Your task to perform on an android device: Go to privacy settings Image 0: 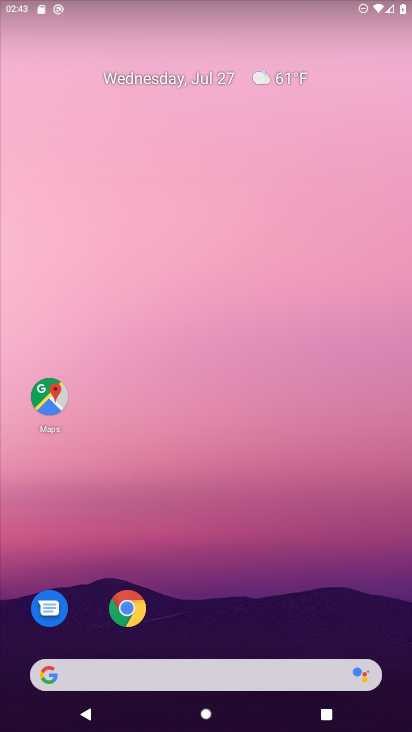
Step 0: drag from (300, 612) to (254, 61)
Your task to perform on an android device: Go to privacy settings Image 1: 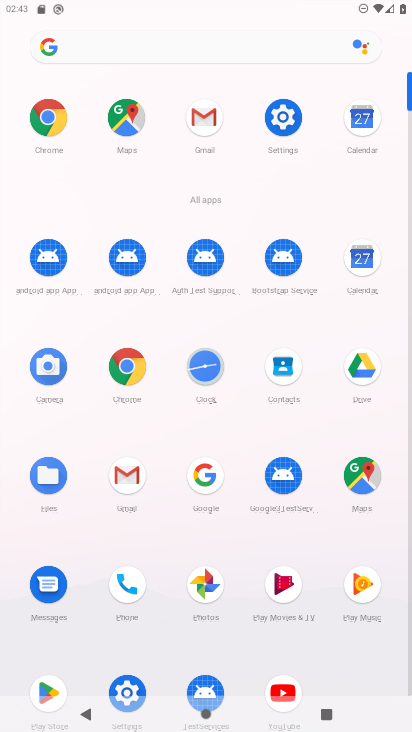
Step 1: click (281, 110)
Your task to perform on an android device: Go to privacy settings Image 2: 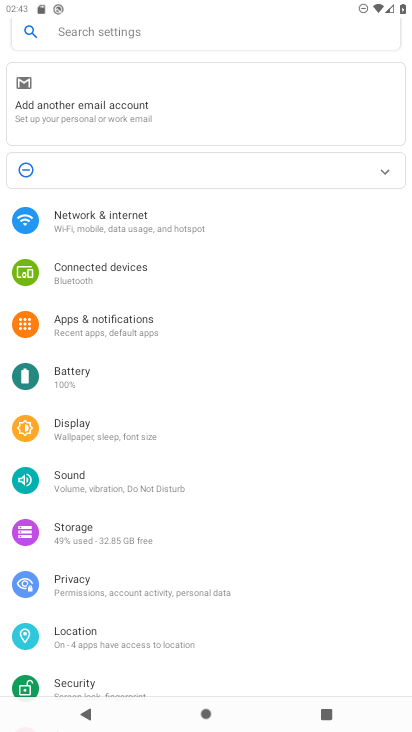
Step 2: click (129, 592)
Your task to perform on an android device: Go to privacy settings Image 3: 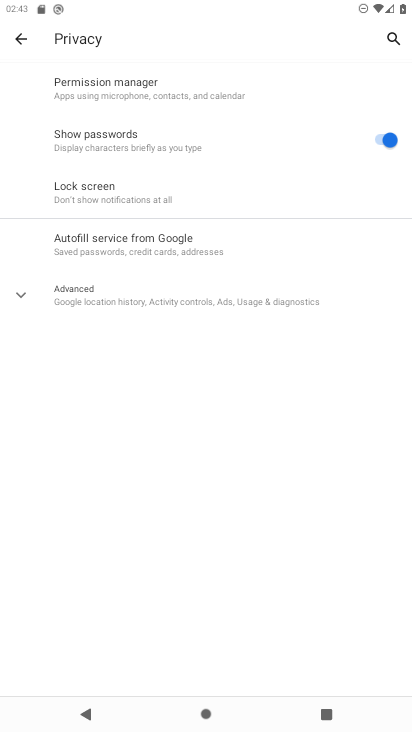
Step 3: task complete